Your task to perform on an android device: Do I have any events today? Image 0: 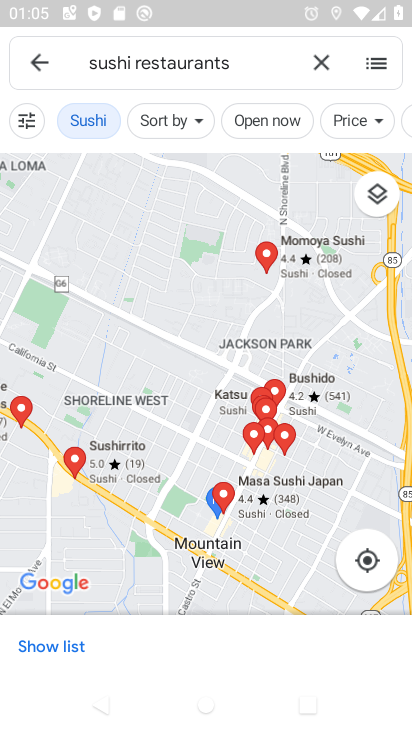
Step 0: press home button
Your task to perform on an android device: Do I have any events today? Image 1: 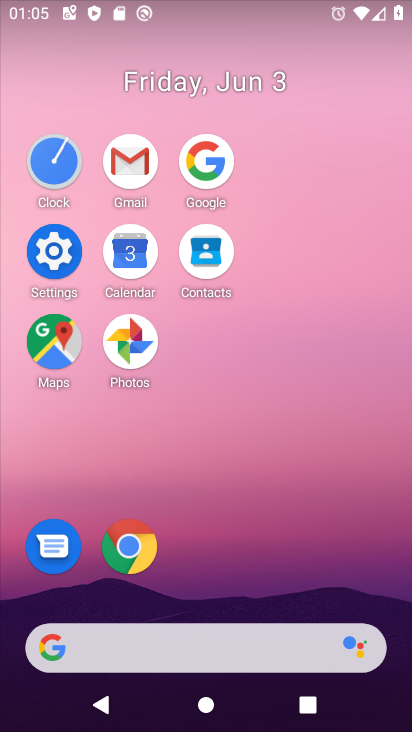
Step 1: click (137, 251)
Your task to perform on an android device: Do I have any events today? Image 2: 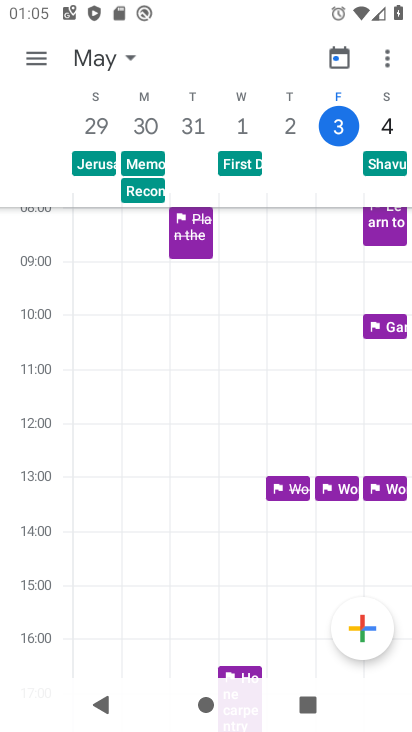
Step 2: click (334, 134)
Your task to perform on an android device: Do I have any events today? Image 3: 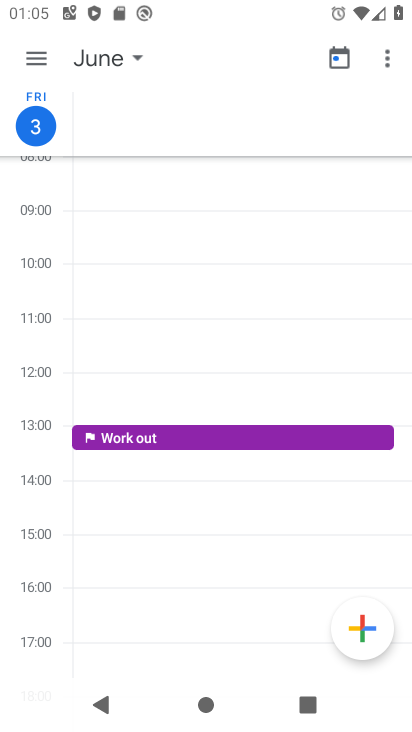
Step 3: task complete